Your task to perform on an android device: Show me productivity apps on the Play Store Image 0: 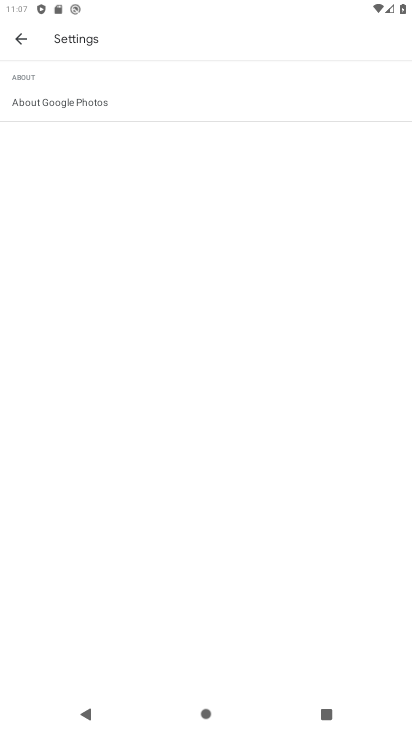
Step 0: press home button
Your task to perform on an android device: Show me productivity apps on the Play Store Image 1: 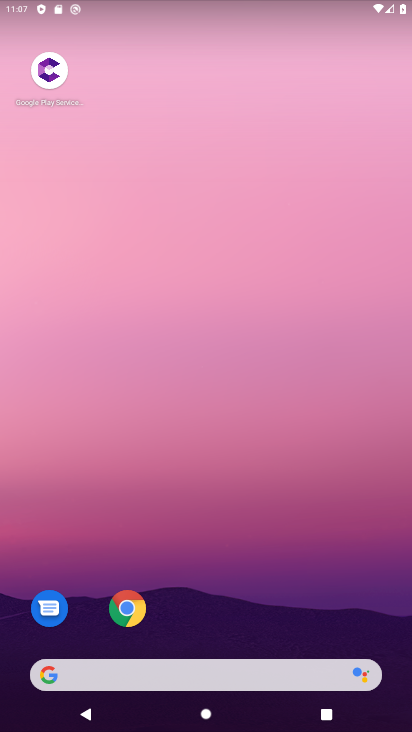
Step 1: drag from (255, 612) to (279, 115)
Your task to perform on an android device: Show me productivity apps on the Play Store Image 2: 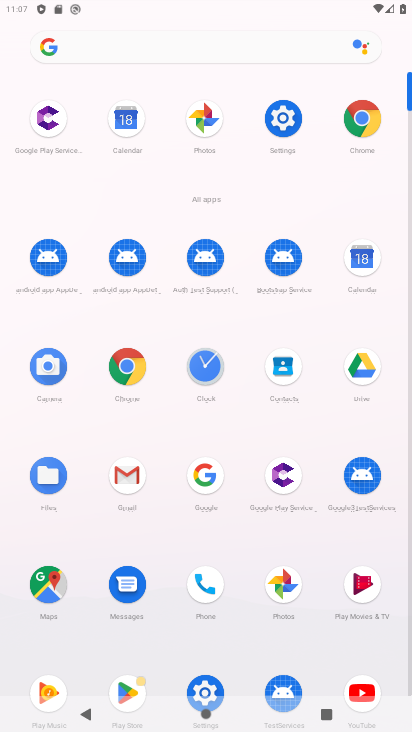
Step 2: click (122, 684)
Your task to perform on an android device: Show me productivity apps on the Play Store Image 3: 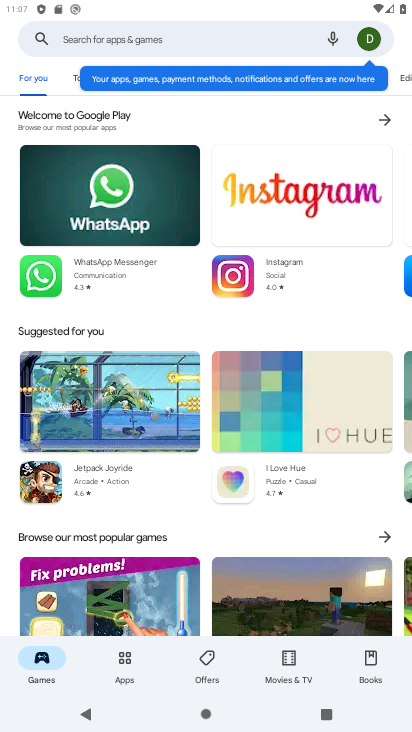
Step 3: click (123, 666)
Your task to perform on an android device: Show me productivity apps on the Play Store Image 4: 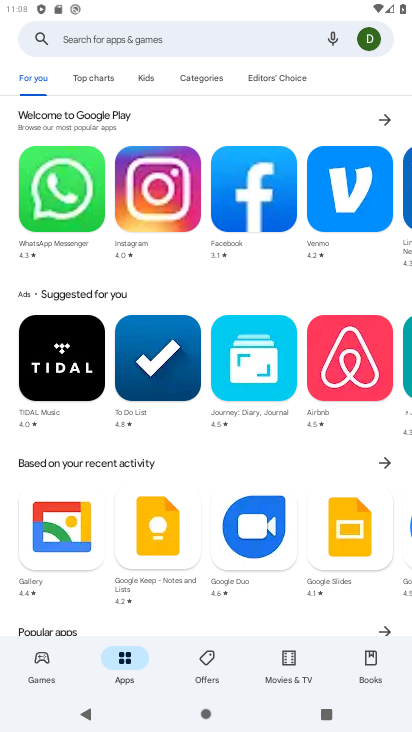
Step 4: click (207, 78)
Your task to perform on an android device: Show me productivity apps on the Play Store Image 5: 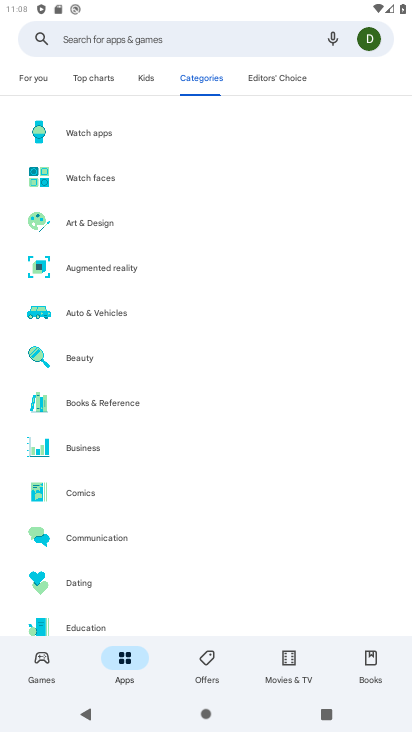
Step 5: drag from (187, 562) to (171, 248)
Your task to perform on an android device: Show me productivity apps on the Play Store Image 6: 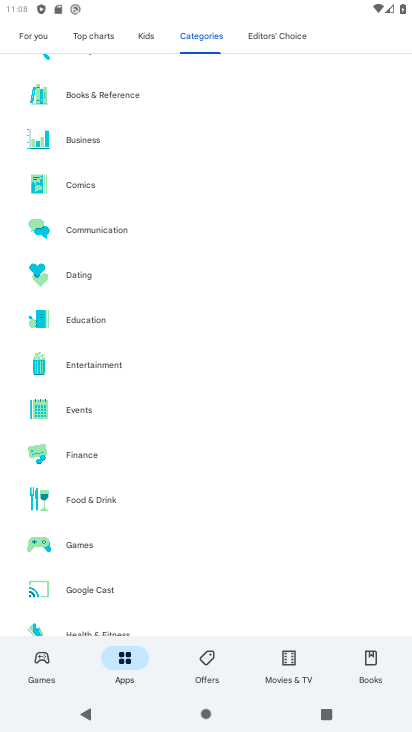
Step 6: drag from (156, 552) to (157, 219)
Your task to perform on an android device: Show me productivity apps on the Play Store Image 7: 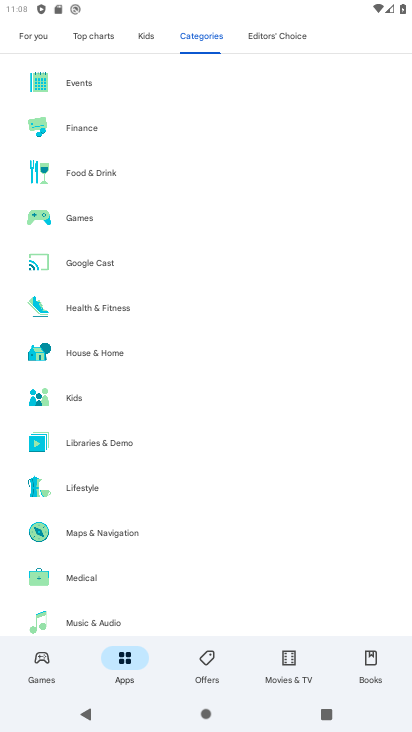
Step 7: drag from (123, 596) to (127, 280)
Your task to perform on an android device: Show me productivity apps on the Play Store Image 8: 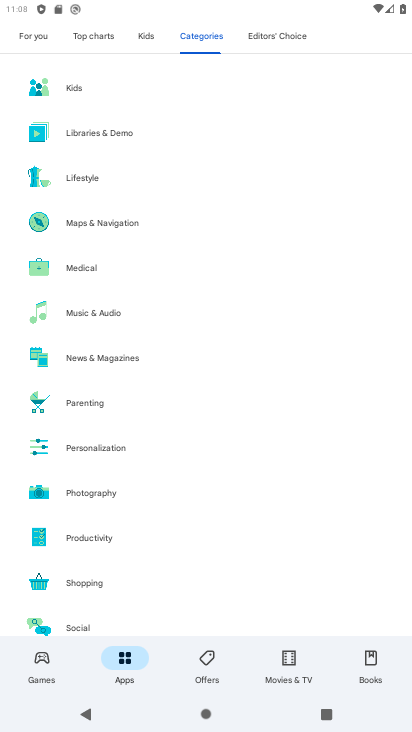
Step 8: click (126, 539)
Your task to perform on an android device: Show me productivity apps on the Play Store Image 9: 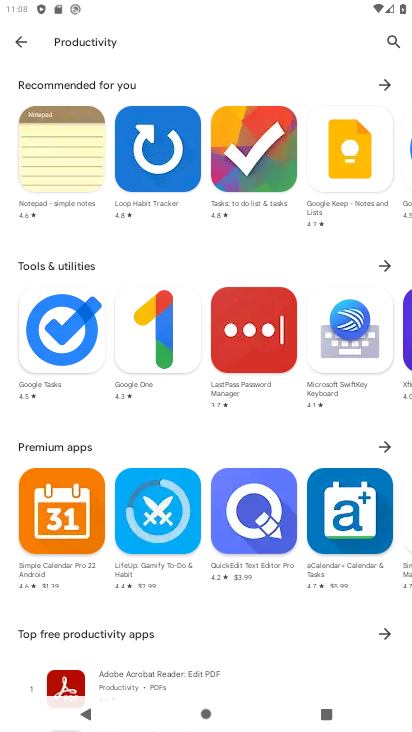
Step 9: task complete